Your task to perform on an android device: open app "Etsy: Buy & Sell Unique Items" (install if not already installed), go to login, and select forgot password Image 0: 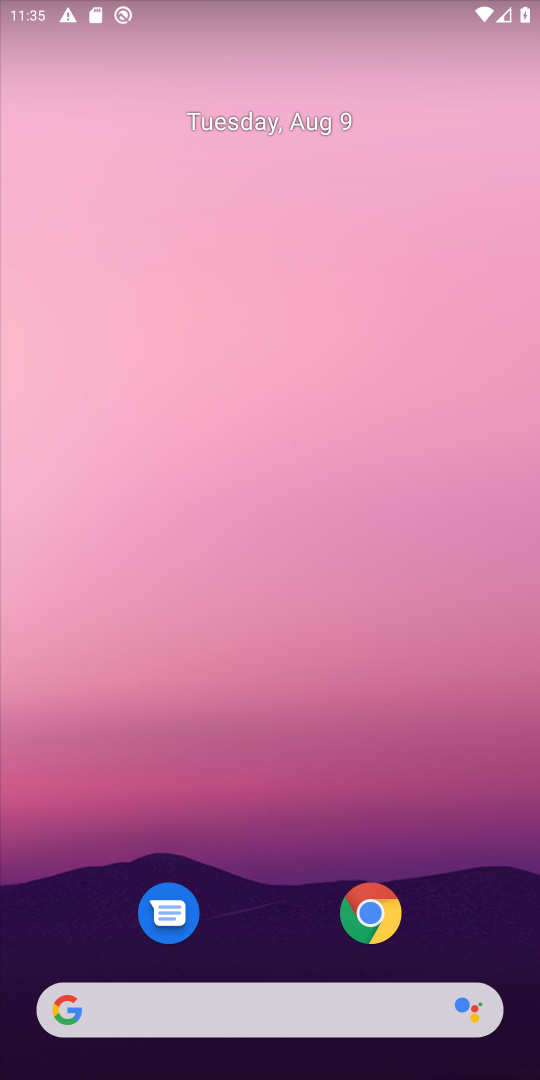
Step 0: drag from (312, 918) to (326, 299)
Your task to perform on an android device: open app "Etsy: Buy & Sell Unique Items" (install if not already installed), go to login, and select forgot password Image 1: 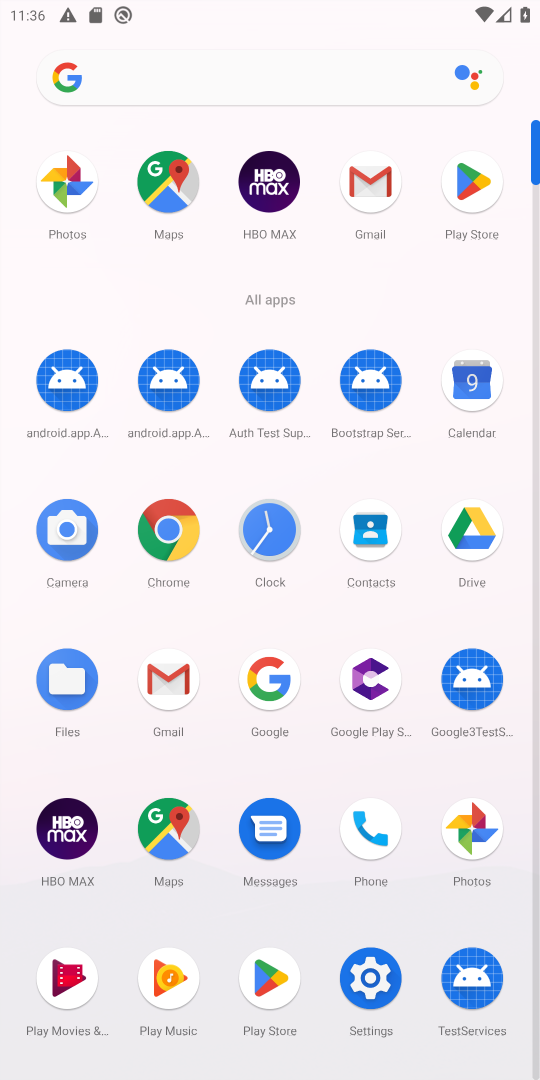
Step 1: click (161, 544)
Your task to perform on an android device: open app "Etsy: Buy & Sell Unique Items" (install if not already installed), go to login, and select forgot password Image 2: 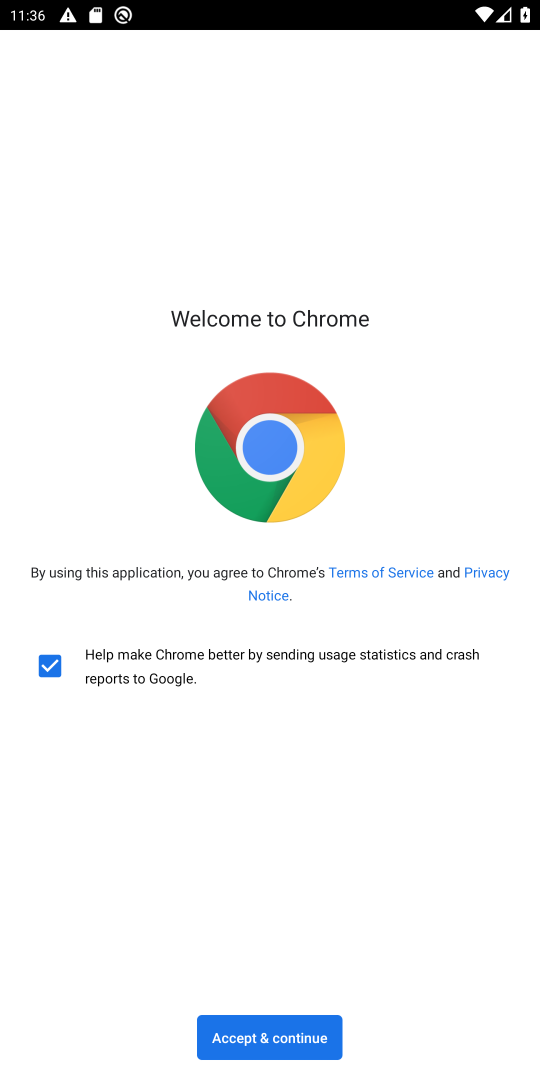
Step 2: click (246, 1032)
Your task to perform on an android device: open app "Etsy: Buy & Sell Unique Items" (install if not already installed), go to login, and select forgot password Image 3: 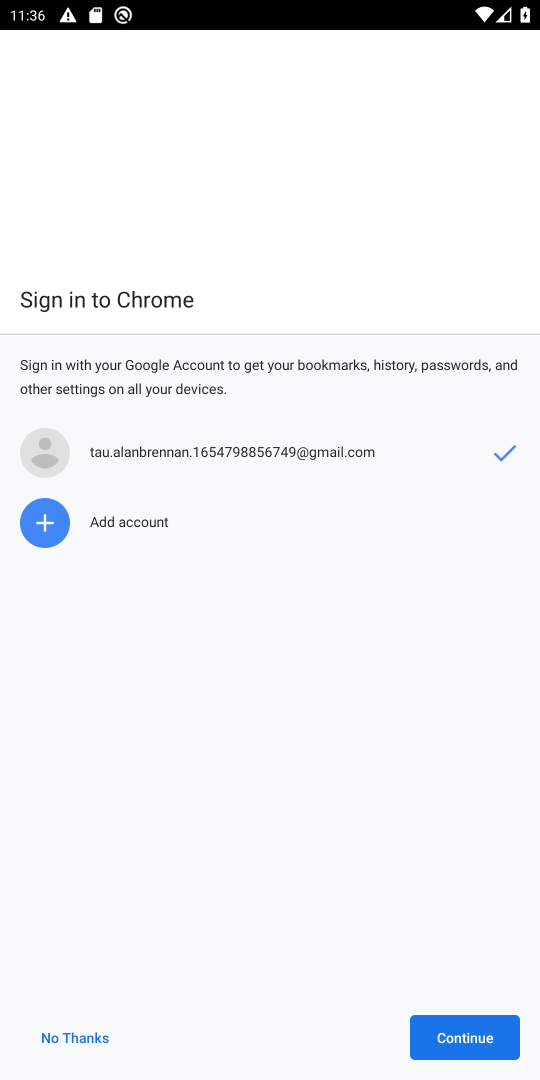
Step 3: click (422, 1023)
Your task to perform on an android device: open app "Etsy: Buy & Sell Unique Items" (install if not already installed), go to login, and select forgot password Image 4: 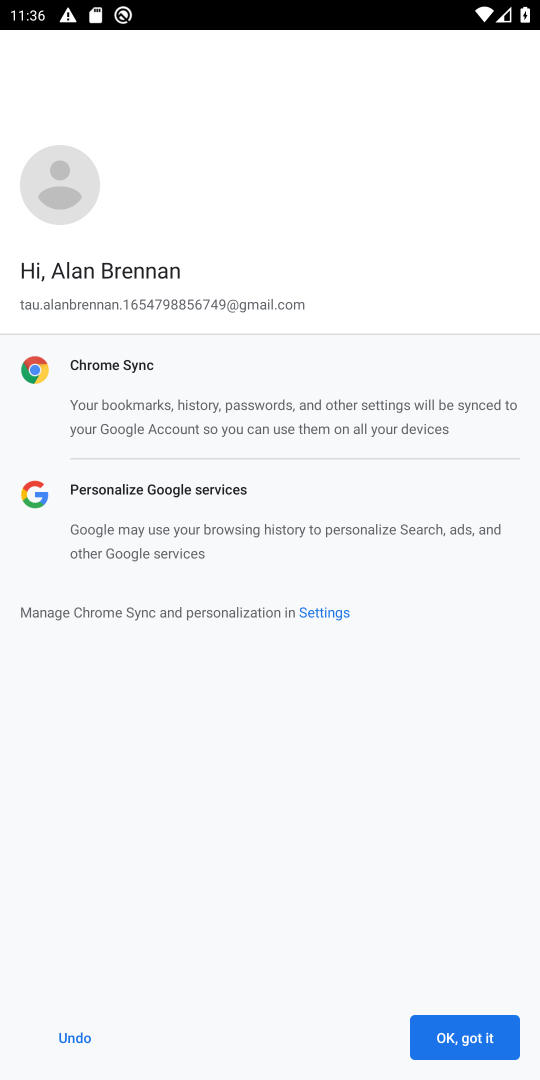
Step 4: click (422, 1023)
Your task to perform on an android device: open app "Etsy: Buy & Sell Unique Items" (install if not already installed), go to login, and select forgot password Image 5: 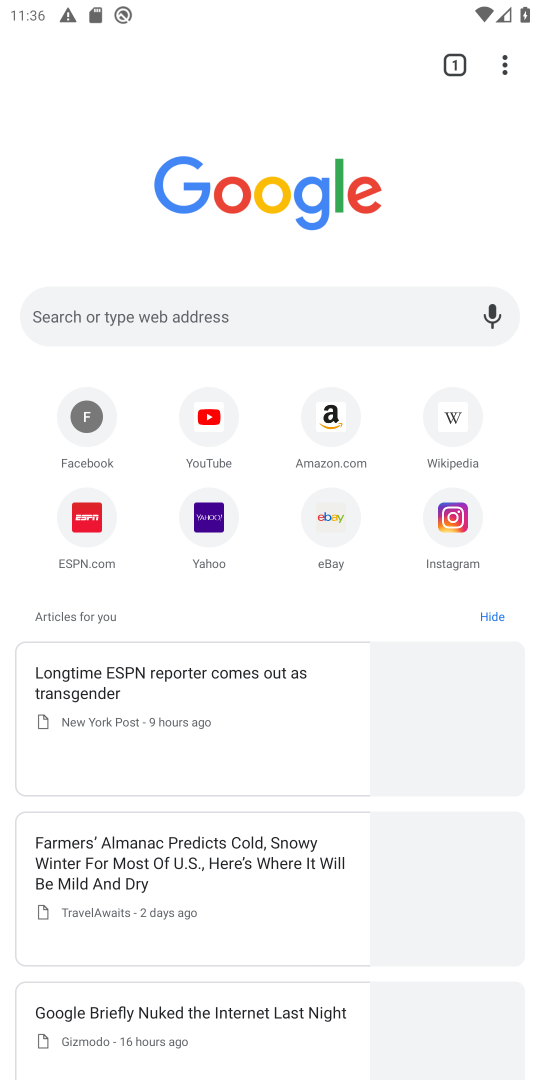
Step 5: press home button
Your task to perform on an android device: open app "Etsy: Buy & Sell Unique Items" (install if not already installed), go to login, and select forgot password Image 6: 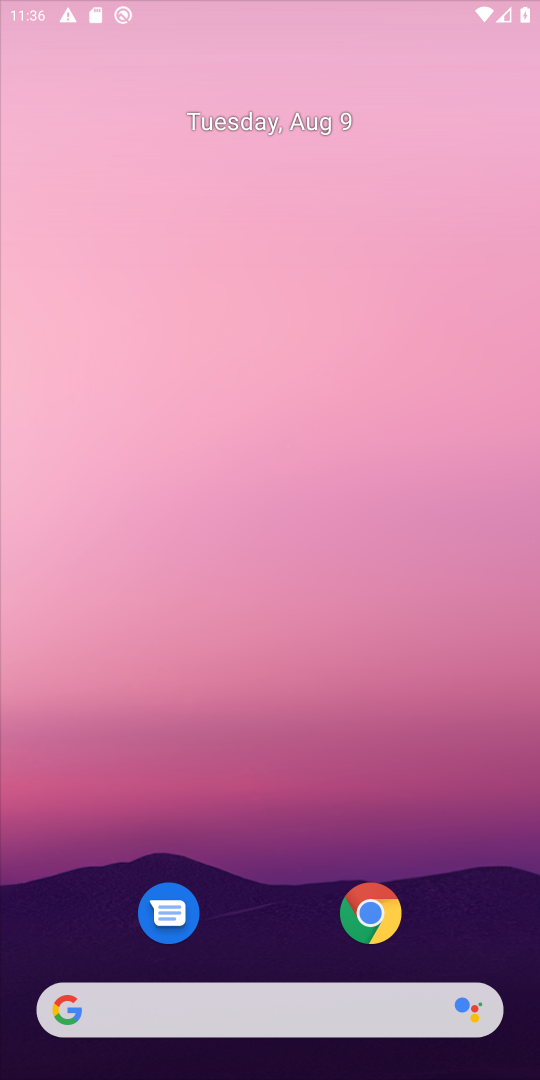
Step 6: drag from (198, 997) to (258, 193)
Your task to perform on an android device: open app "Etsy: Buy & Sell Unique Items" (install if not already installed), go to login, and select forgot password Image 7: 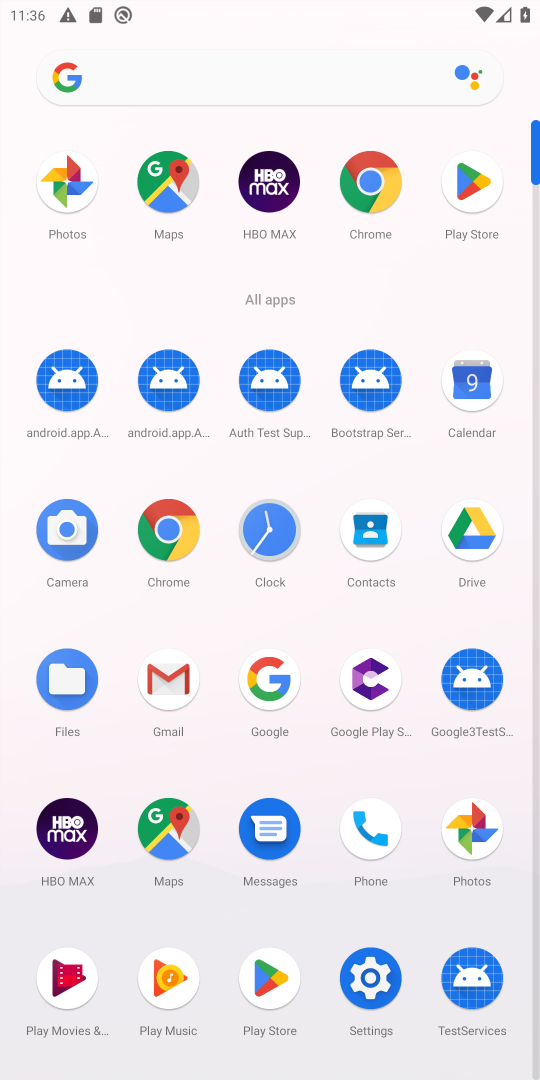
Step 7: click (279, 975)
Your task to perform on an android device: open app "Etsy: Buy & Sell Unique Items" (install if not already installed), go to login, and select forgot password Image 8: 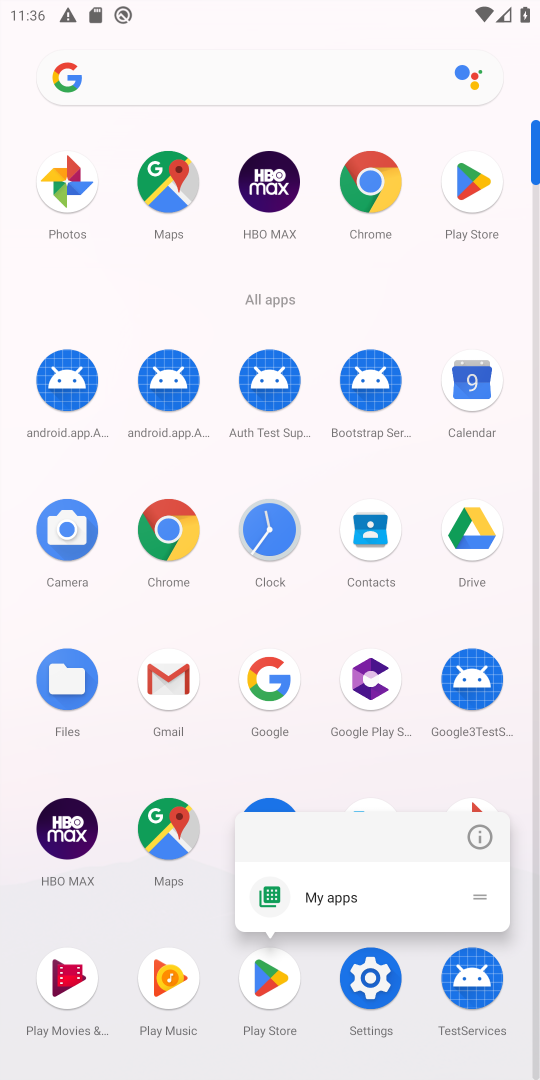
Step 8: click (279, 975)
Your task to perform on an android device: open app "Etsy: Buy & Sell Unique Items" (install if not already installed), go to login, and select forgot password Image 9: 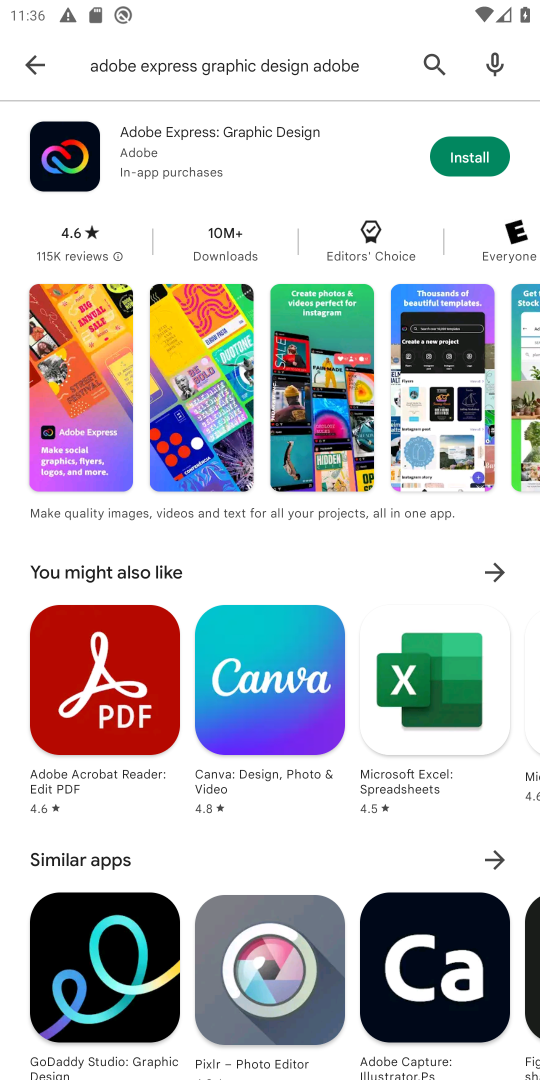
Step 9: click (33, 59)
Your task to perform on an android device: open app "Etsy: Buy & Sell Unique Items" (install if not already installed), go to login, and select forgot password Image 10: 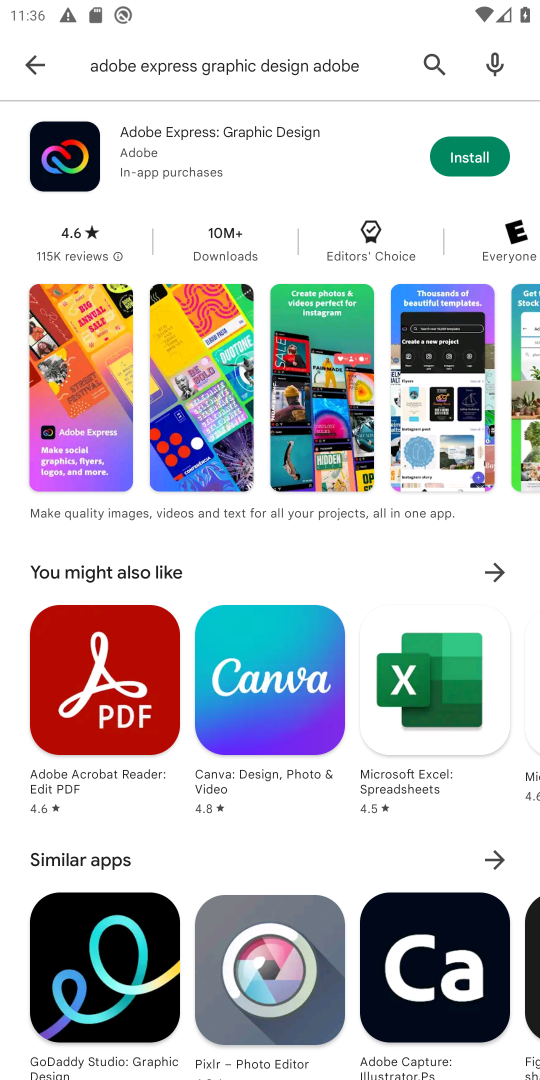
Step 10: click (33, 59)
Your task to perform on an android device: open app "Etsy: Buy & Sell Unique Items" (install if not already installed), go to login, and select forgot password Image 11: 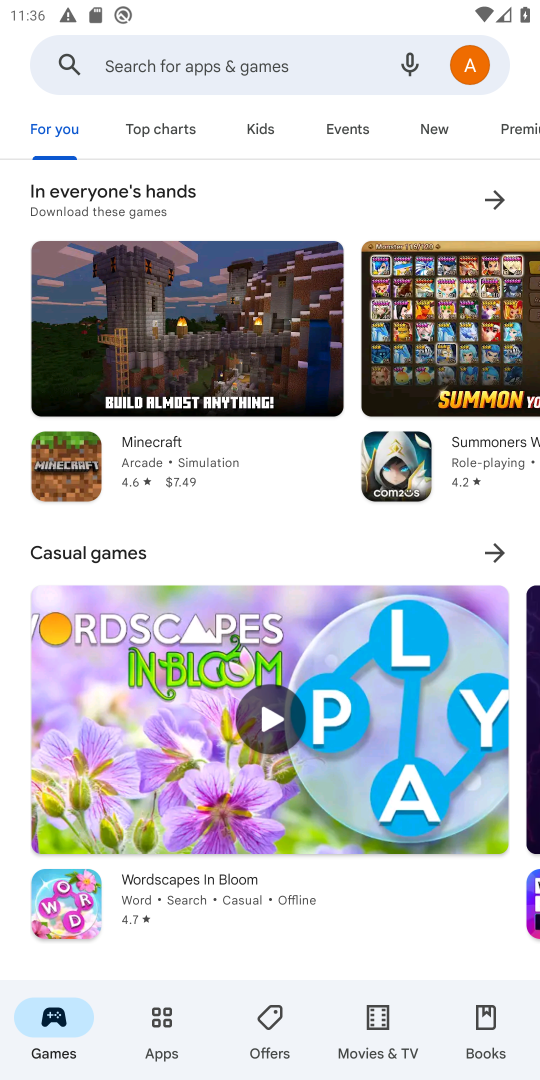
Step 11: click (253, 62)
Your task to perform on an android device: open app "Etsy: Buy & Sell Unique Items" (install if not already installed), go to login, and select forgot password Image 12: 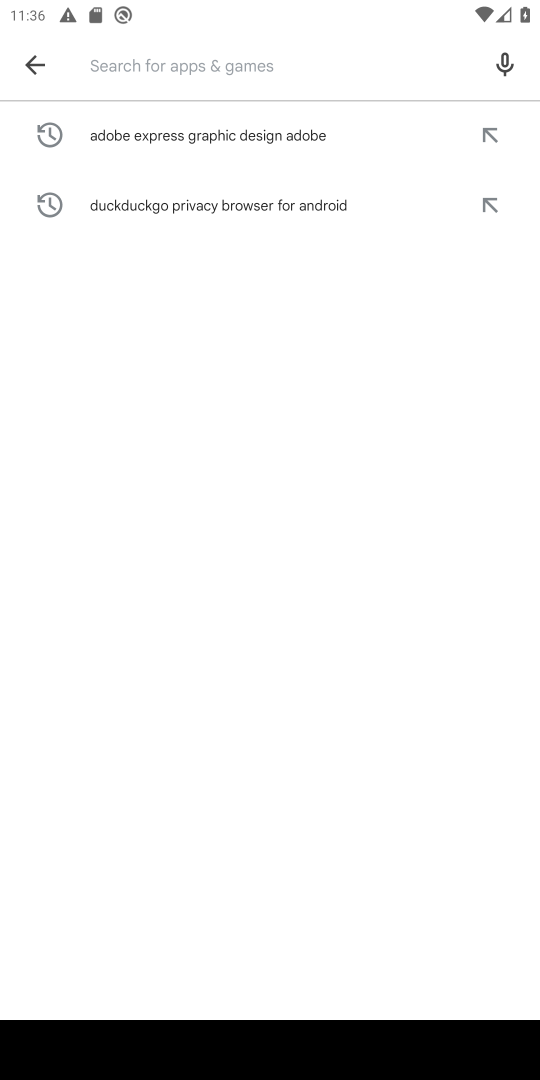
Step 12: type "Etsy: Buy & Sell Unique Items "
Your task to perform on an android device: open app "Etsy: Buy & Sell Unique Items" (install if not already installed), go to login, and select forgot password Image 13: 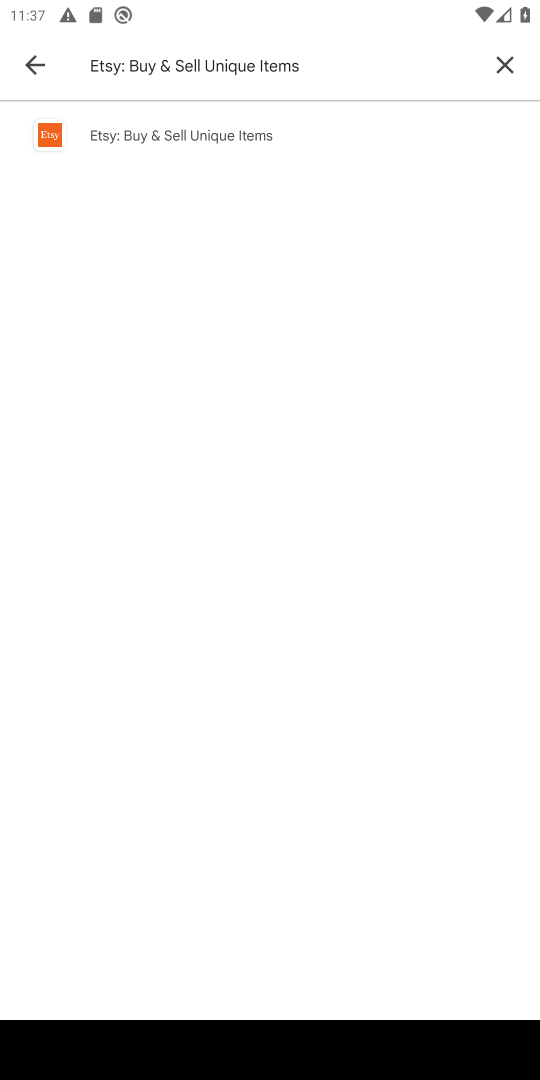
Step 13: click (196, 121)
Your task to perform on an android device: open app "Etsy: Buy & Sell Unique Items" (install if not already installed), go to login, and select forgot password Image 14: 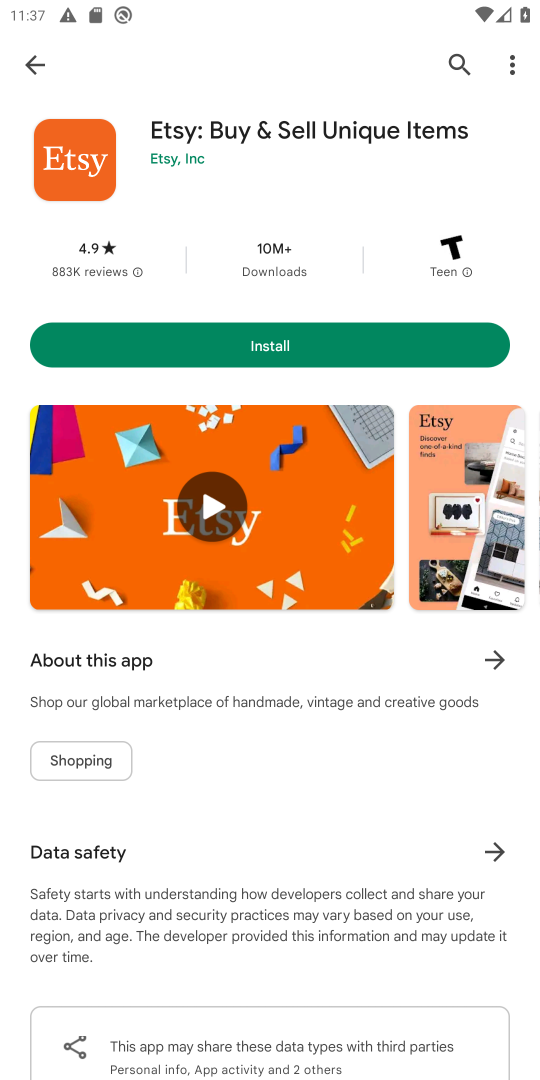
Step 14: click (223, 325)
Your task to perform on an android device: open app "Etsy: Buy & Sell Unique Items" (install if not already installed), go to login, and select forgot password Image 15: 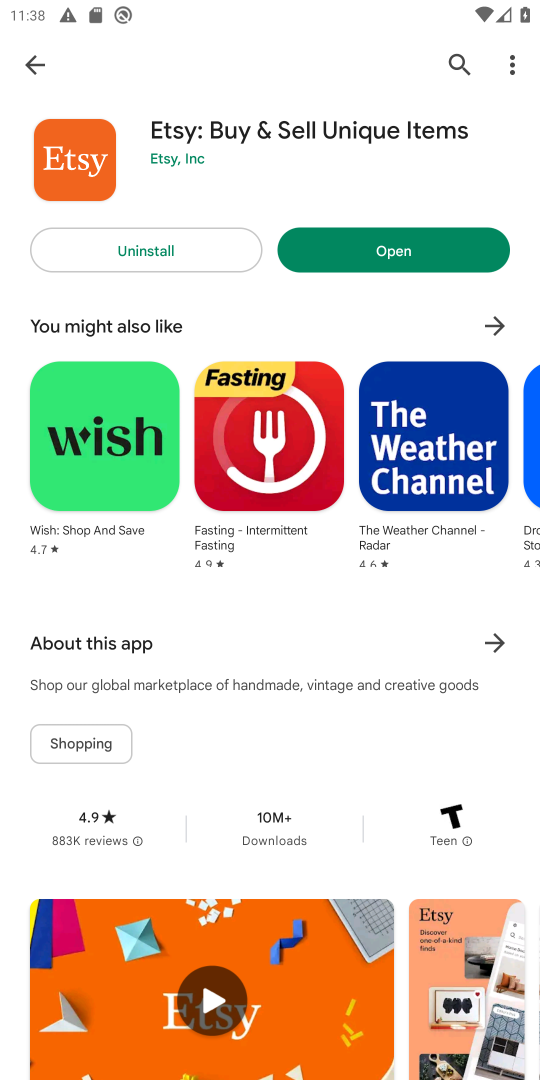
Step 15: task complete